Your task to perform on an android device: see creations saved in the google photos Image 0: 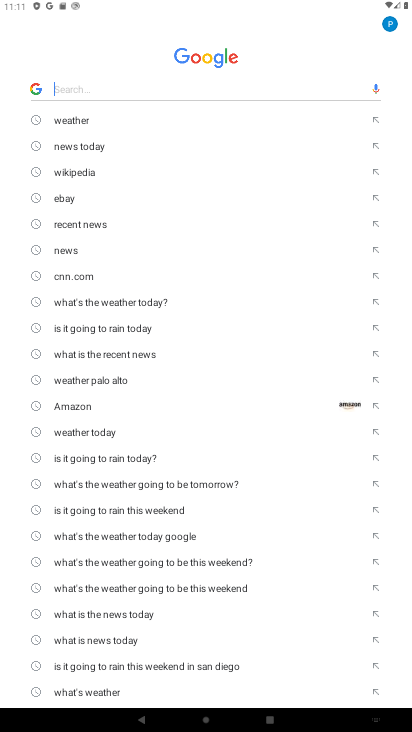
Step 0: press home button
Your task to perform on an android device: see creations saved in the google photos Image 1: 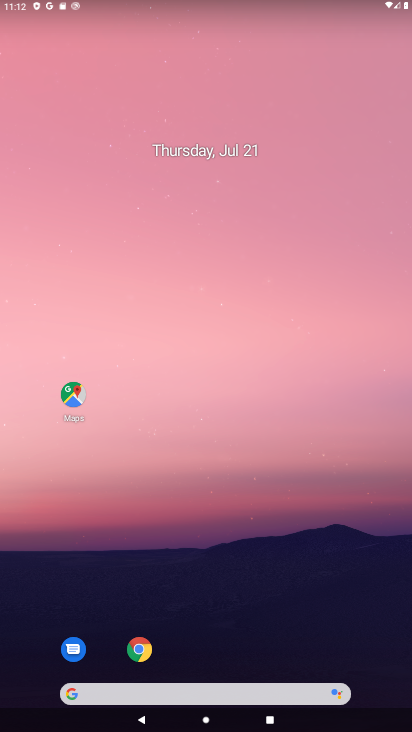
Step 1: drag from (230, 478) to (230, 89)
Your task to perform on an android device: see creations saved in the google photos Image 2: 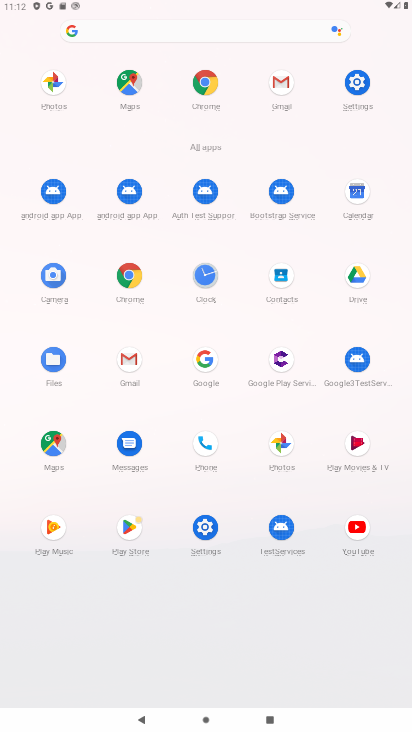
Step 2: click (285, 440)
Your task to perform on an android device: see creations saved in the google photos Image 3: 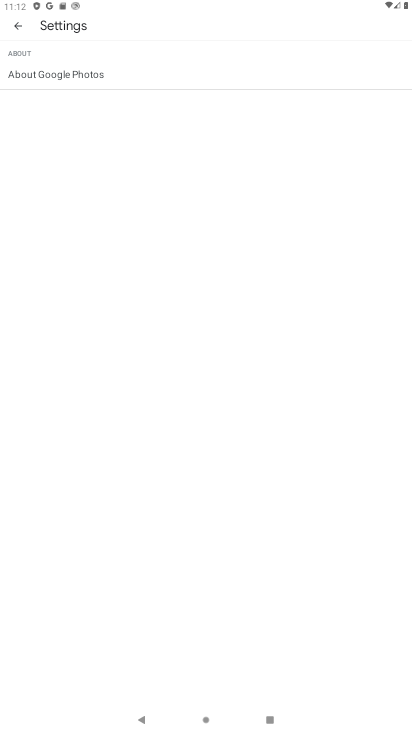
Step 3: click (17, 20)
Your task to perform on an android device: see creations saved in the google photos Image 4: 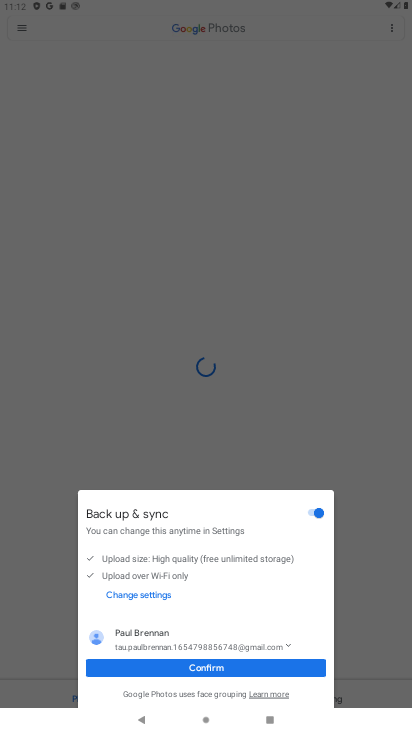
Step 4: click (190, 668)
Your task to perform on an android device: see creations saved in the google photos Image 5: 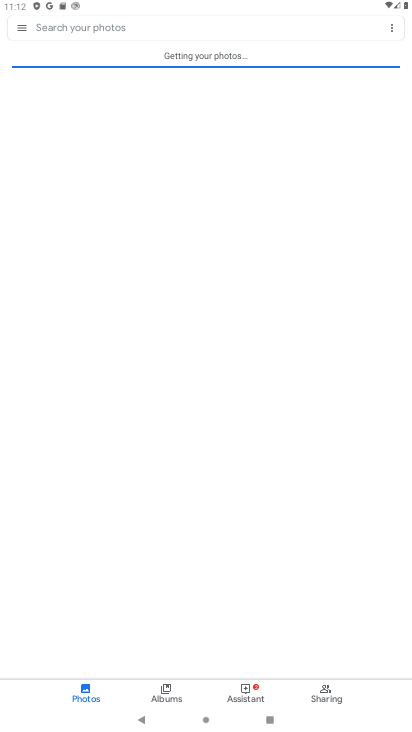
Step 5: click (200, 30)
Your task to perform on an android device: see creations saved in the google photos Image 6: 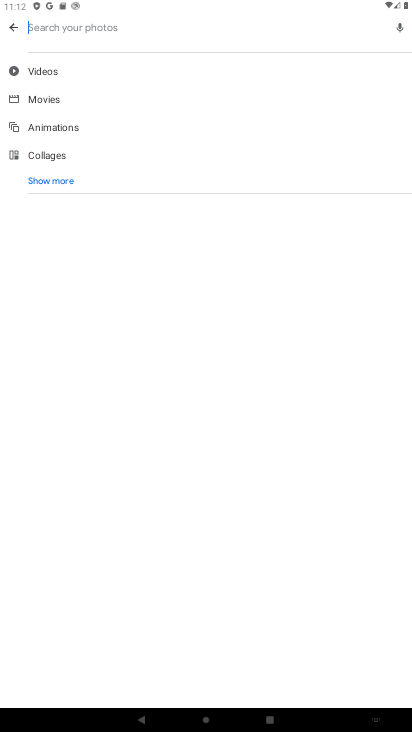
Step 6: click (57, 176)
Your task to perform on an android device: see creations saved in the google photos Image 7: 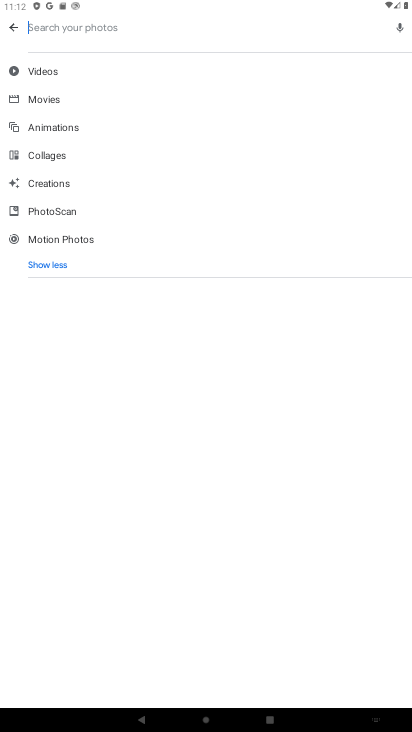
Step 7: click (51, 183)
Your task to perform on an android device: see creations saved in the google photos Image 8: 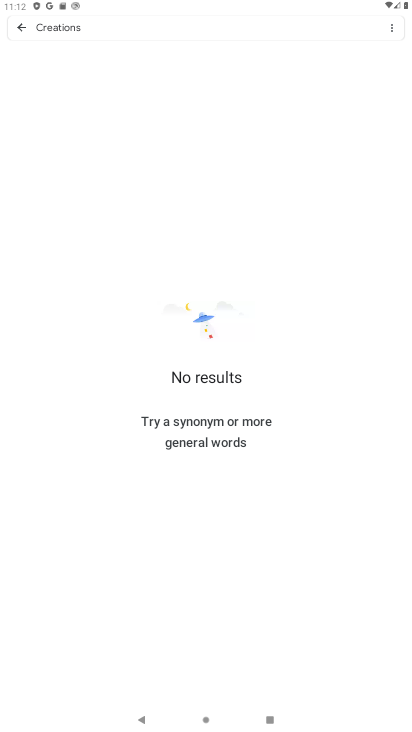
Step 8: task complete